Your task to perform on an android device: Search for pizza restaurants on Maps Image 0: 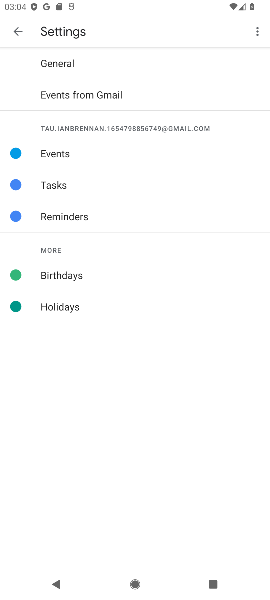
Step 0: press home button
Your task to perform on an android device: Search for pizza restaurants on Maps Image 1: 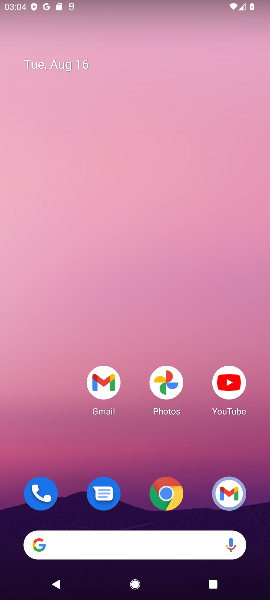
Step 1: drag from (73, 454) to (63, 280)
Your task to perform on an android device: Search for pizza restaurants on Maps Image 2: 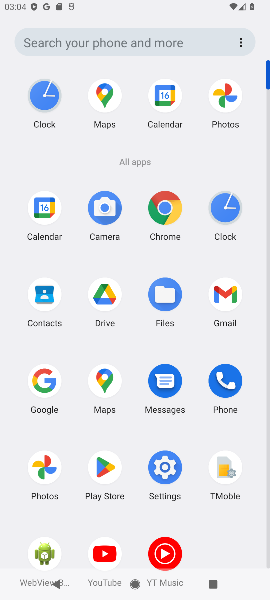
Step 2: click (109, 386)
Your task to perform on an android device: Search for pizza restaurants on Maps Image 3: 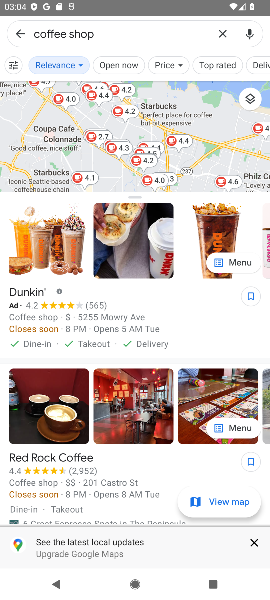
Step 3: click (220, 31)
Your task to perform on an android device: Search for pizza restaurants on Maps Image 4: 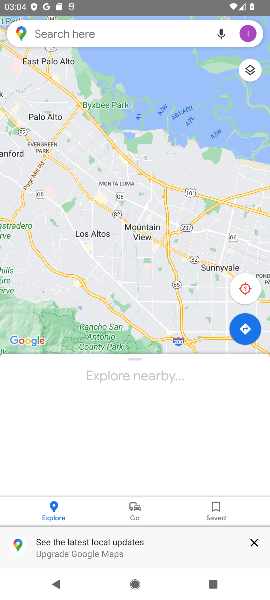
Step 4: click (118, 32)
Your task to perform on an android device: Search for pizza restaurants on Maps Image 5: 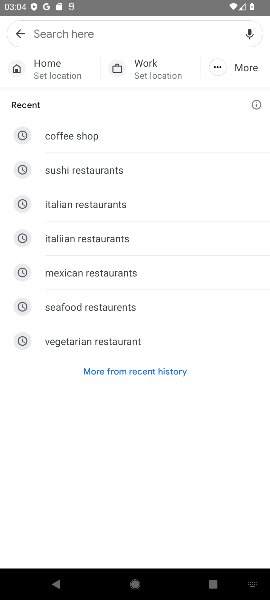
Step 5: type "pizza restgaurantgs"
Your task to perform on an android device: Search for pizza restaurants on Maps Image 6: 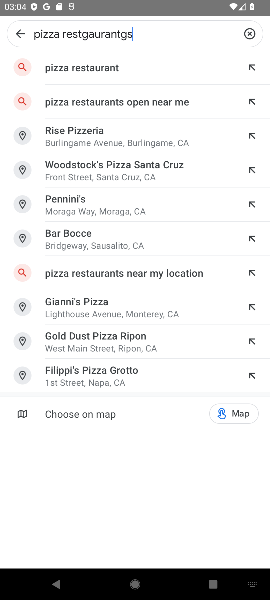
Step 6: click (115, 62)
Your task to perform on an android device: Search for pizza restaurants on Maps Image 7: 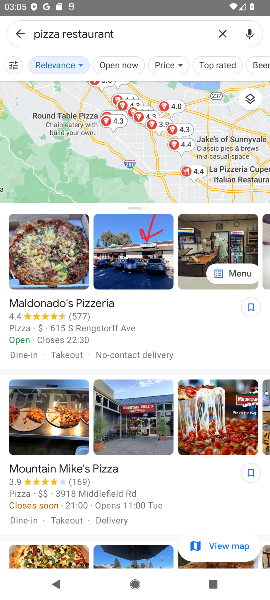
Step 7: task complete